Your task to perform on an android device: search for starred emails in the gmail app Image 0: 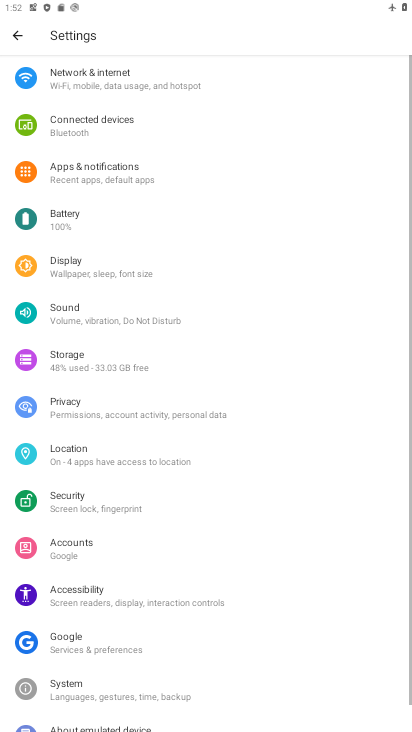
Step 0: press home button
Your task to perform on an android device: search for starred emails in the gmail app Image 1: 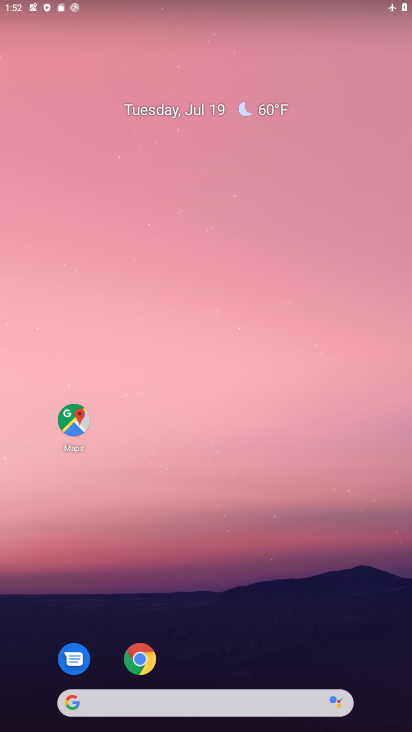
Step 1: drag from (278, 654) to (228, 181)
Your task to perform on an android device: search for starred emails in the gmail app Image 2: 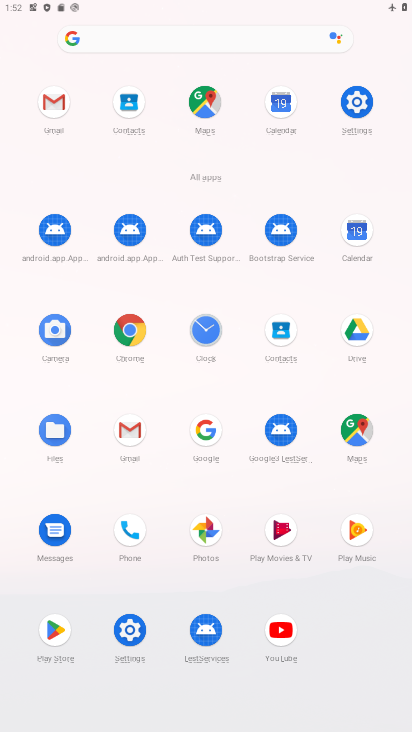
Step 2: click (125, 432)
Your task to perform on an android device: search for starred emails in the gmail app Image 3: 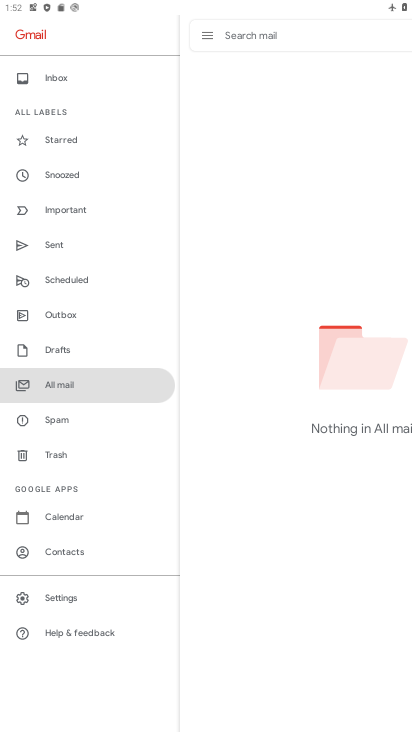
Step 3: click (78, 136)
Your task to perform on an android device: search for starred emails in the gmail app Image 4: 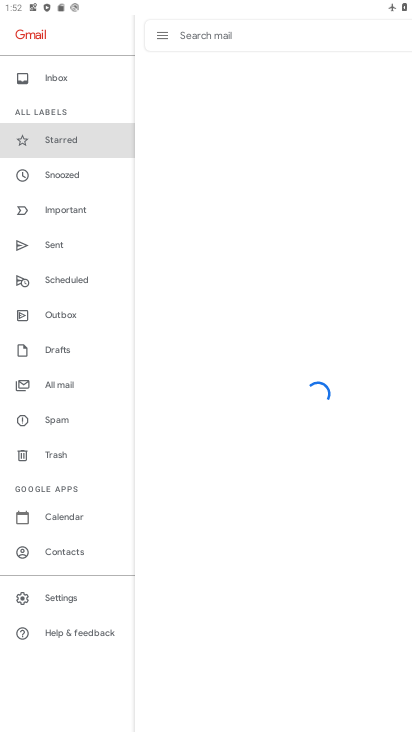
Step 4: click (265, 411)
Your task to perform on an android device: search for starred emails in the gmail app Image 5: 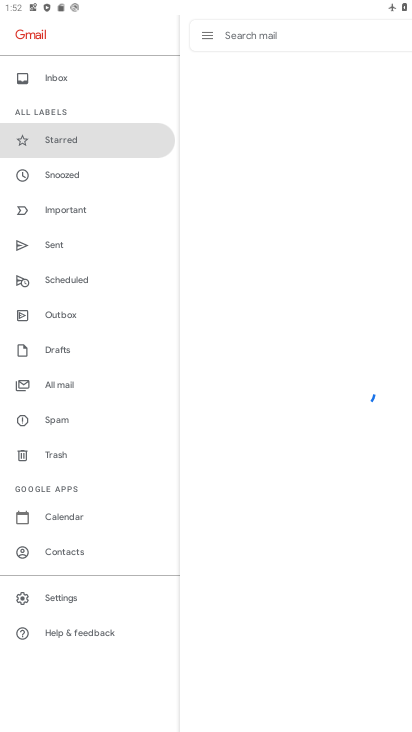
Step 5: task complete